Your task to perform on an android device: Set the phone to "Do not disturb". Image 0: 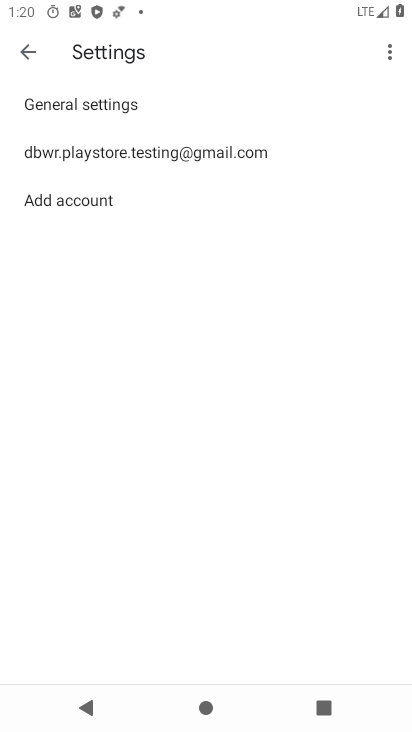
Step 0: press home button
Your task to perform on an android device: Set the phone to "Do not disturb". Image 1: 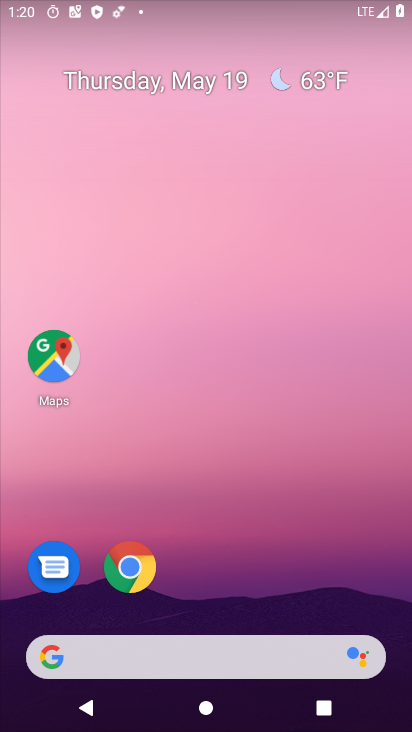
Step 1: drag from (174, 665) to (309, 249)
Your task to perform on an android device: Set the phone to "Do not disturb". Image 2: 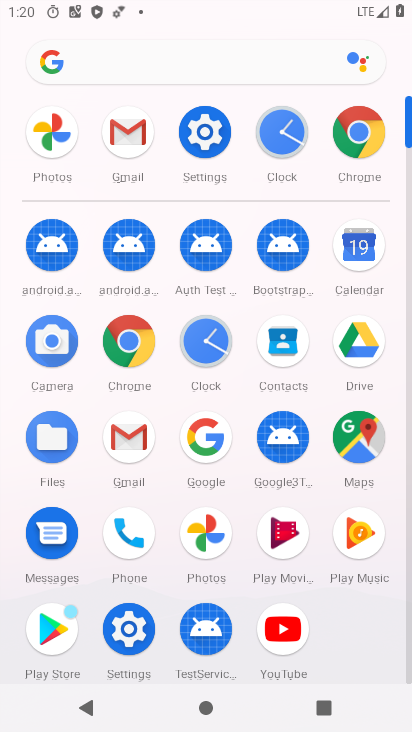
Step 2: click (209, 133)
Your task to perform on an android device: Set the phone to "Do not disturb". Image 3: 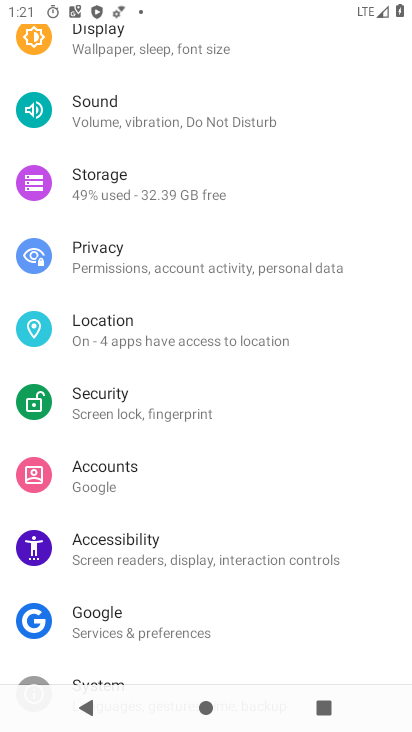
Step 3: click (189, 117)
Your task to perform on an android device: Set the phone to "Do not disturb". Image 4: 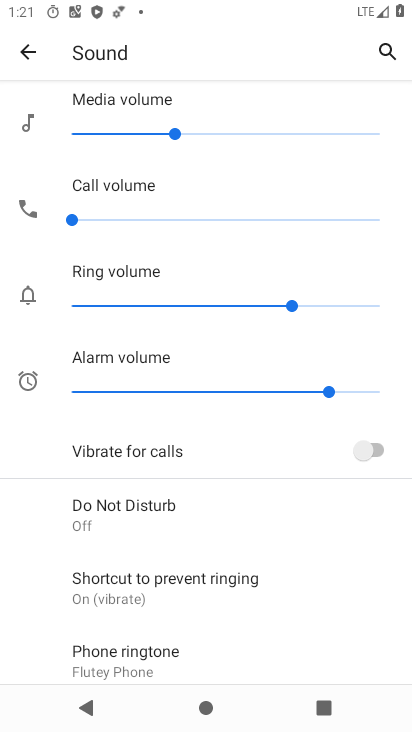
Step 4: click (112, 514)
Your task to perform on an android device: Set the phone to "Do not disturb". Image 5: 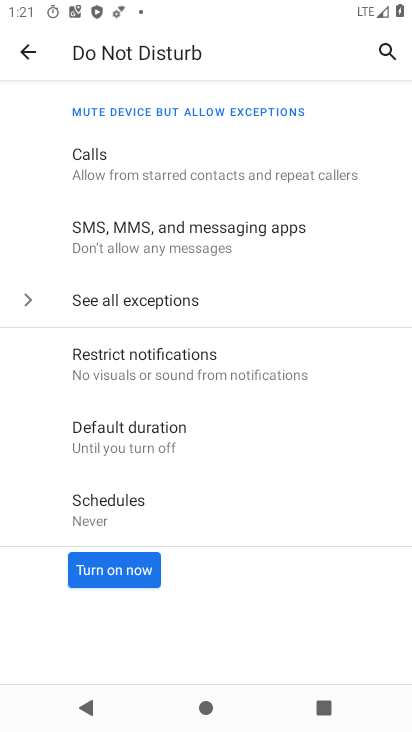
Step 5: click (116, 576)
Your task to perform on an android device: Set the phone to "Do not disturb". Image 6: 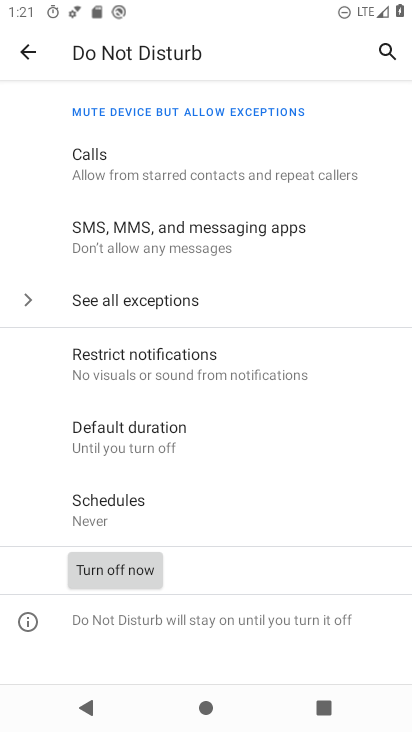
Step 6: task complete